Your task to perform on an android device: turn on airplane mode Image 0: 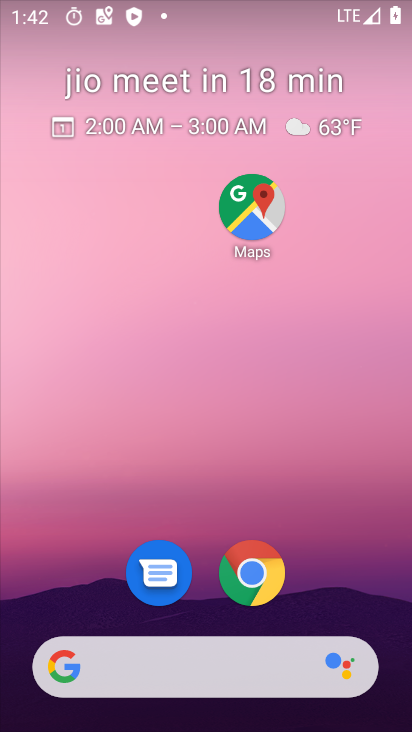
Step 0: drag from (340, 11) to (392, 422)
Your task to perform on an android device: turn on airplane mode Image 1: 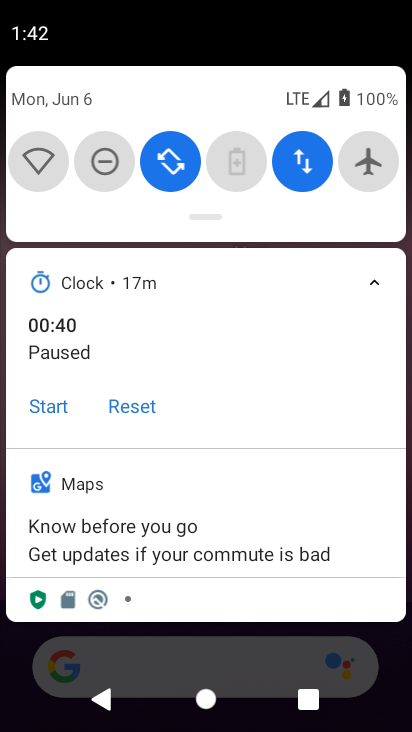
Step 1: click (370, 158)
Your task to perform on an android device: turn on airplane mode Image 2: 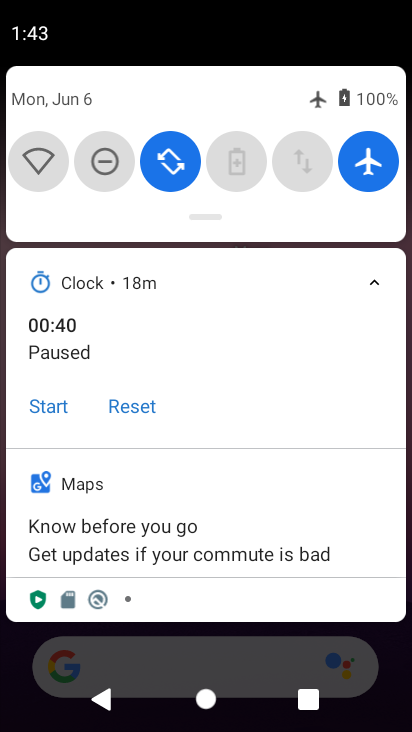
Step 2: task complete